Your task to perform on an android device: Toggle the flashlight Image 0: 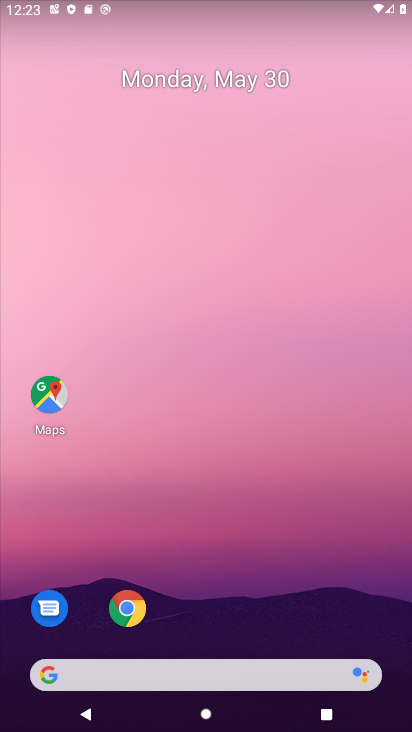
Step 0: drag from (311, 581) to (300, 67)
Your task to perform on an android device: Toggle the flashlight Image 1: 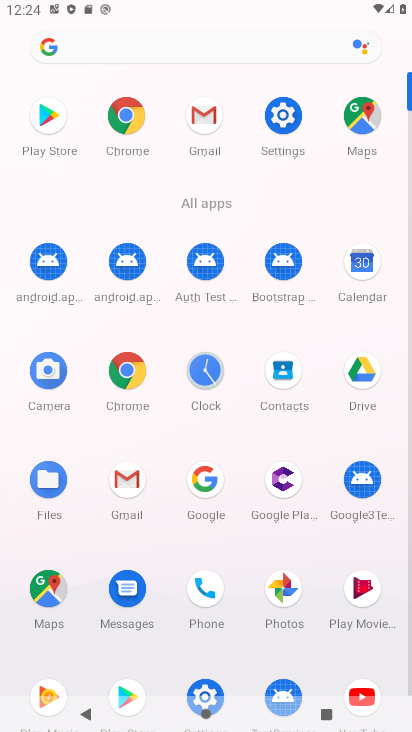
Step 1: click (282, 107)
Your task to perform on an android device: Toggle the flashlight Image 2: 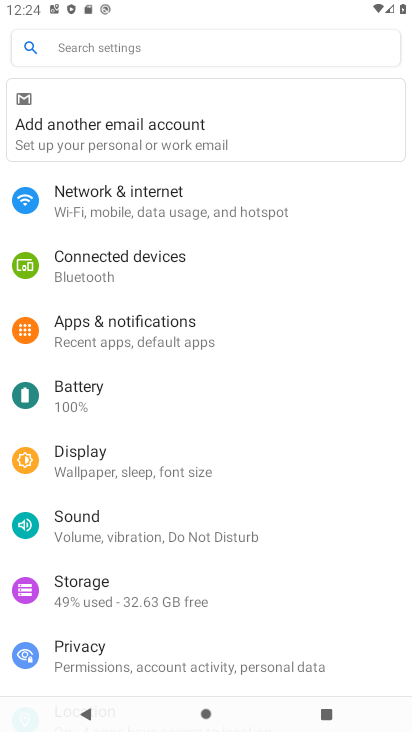
Step 2: click (156, 343)
Your task to perform on an android device: Toggle the flashlight Image 3: 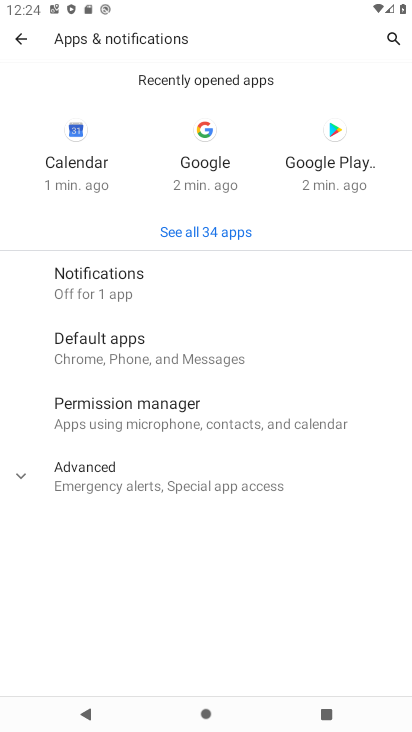
Step 3: click (175, 480)
Your task to perform on an android device: Toggle the flashlight Image 4: 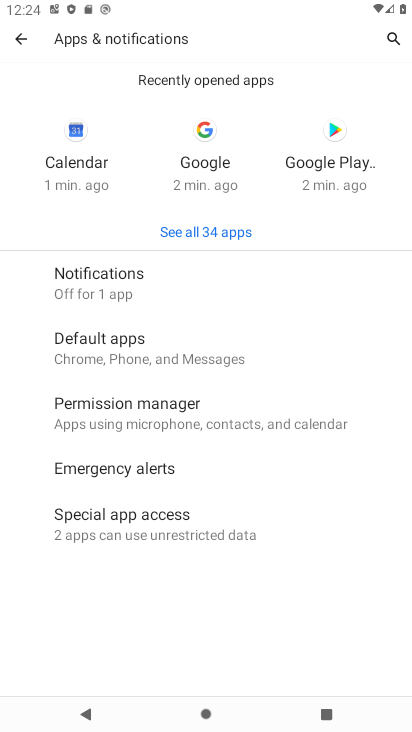
Step 4: click (164, 530)
Your task to perform on an android device: Toggle the flashlight Image 5: 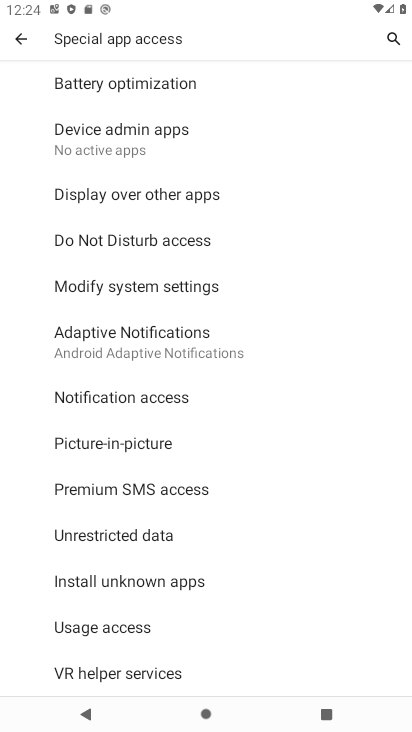
Step 5: task complete